Your task to perform on an android device: open chrome privacy settings Image 0: 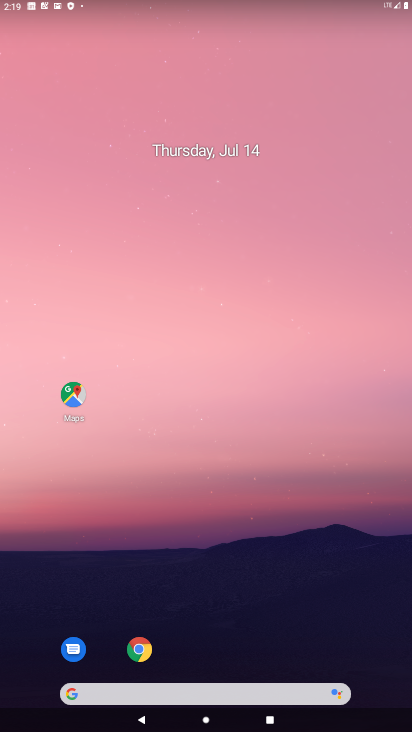
Step 0: drag from (352, 665) to (199, 26)
Your task to perform on an android device: open chrome privacy settings Image 1: 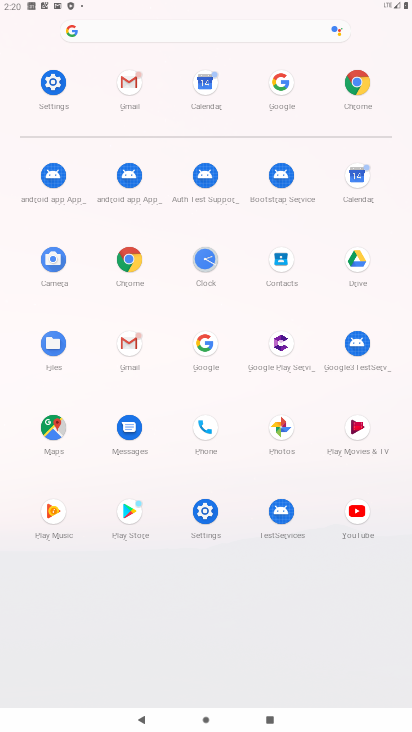
Step 1: click (120, 267)
Your task to perform on an android device: open chrome privacy settings Image 2: 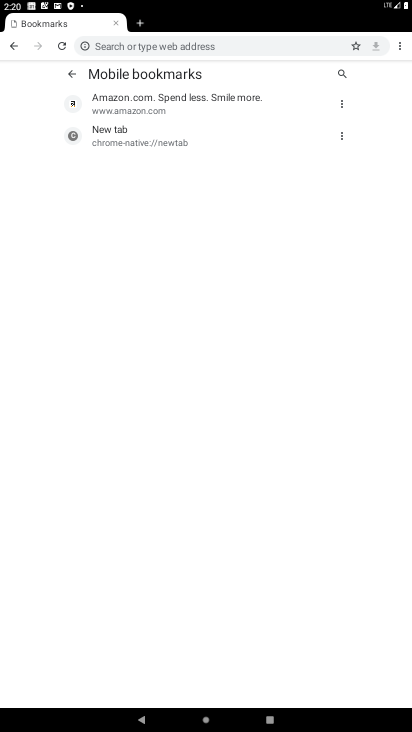
Step 2: click (396, 41)
Your task to perform on an android device: open chrome privacy settings Image 3: 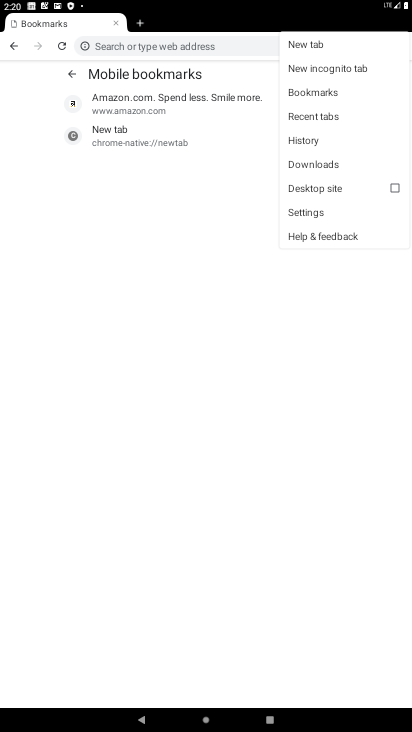
Step 3: click (315, 214)
Your task to perform on an android device: open chrome privacy settings Image 4: 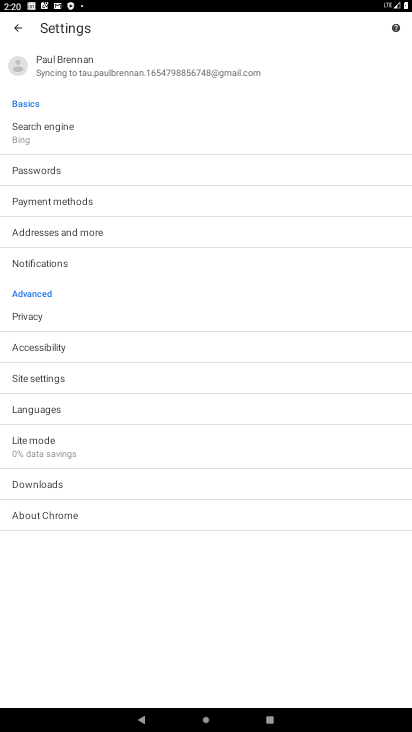
Step 4: click (82, 324)
Your task to perform on an android device: open chrome privacy settings Image 5: 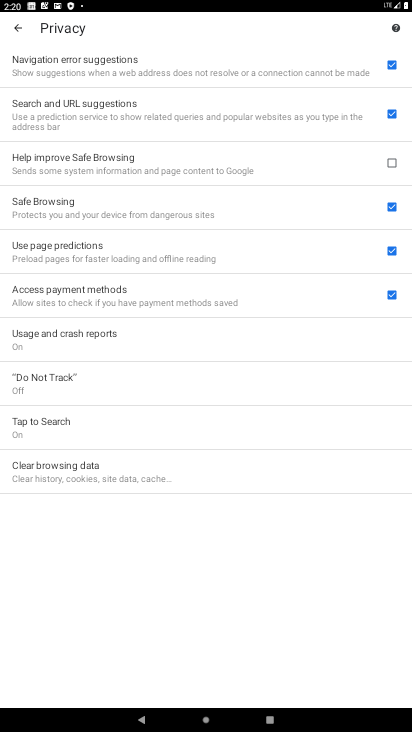
Step 5: task complete